Your task to perform on an android device: find which apps use the phone's location Image 0: 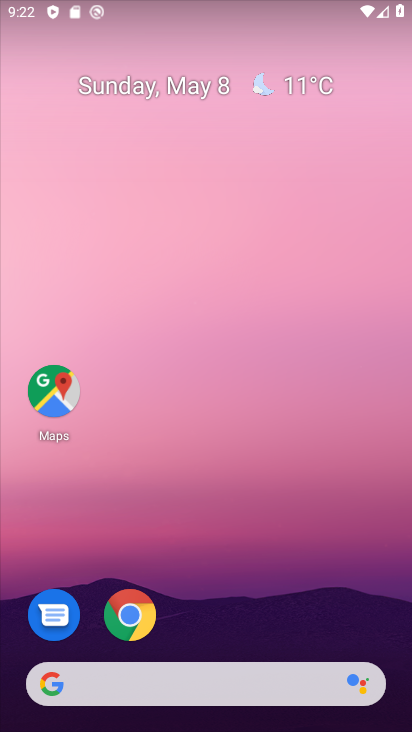
Step 0: drag from (224, 621) to (226, 89)
Your task to perform on an android device: find which apps use the phone's location Image 1: 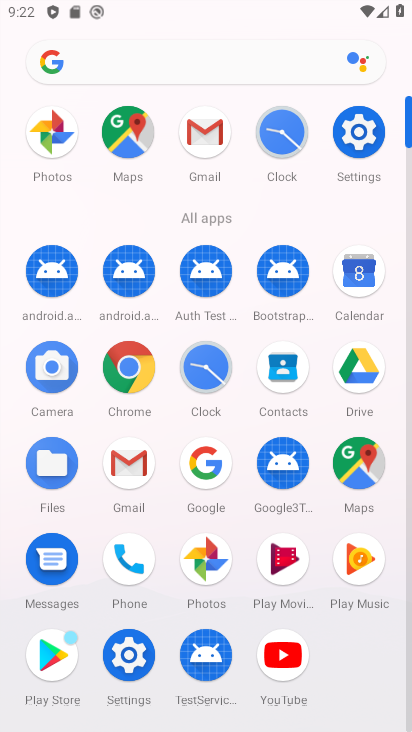
Step 1: click (353, 127)
Your task to perform on an android device: find which apps use the phone's location Image 2: 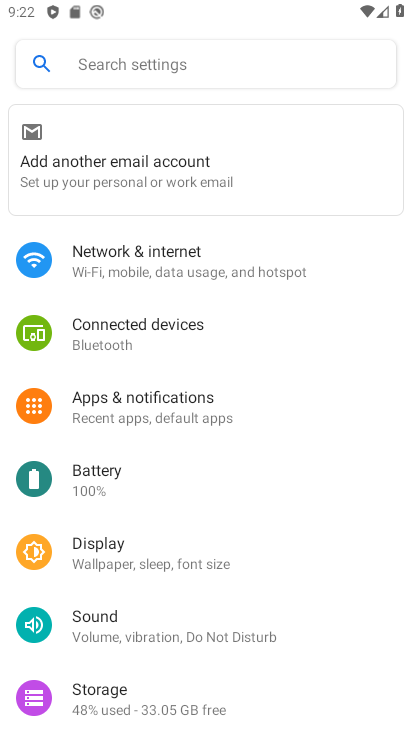
Step 2: drag from (192, 678) to (317, 265)
Your task to perform on an android device: find which apps use the phone's location Image 3: 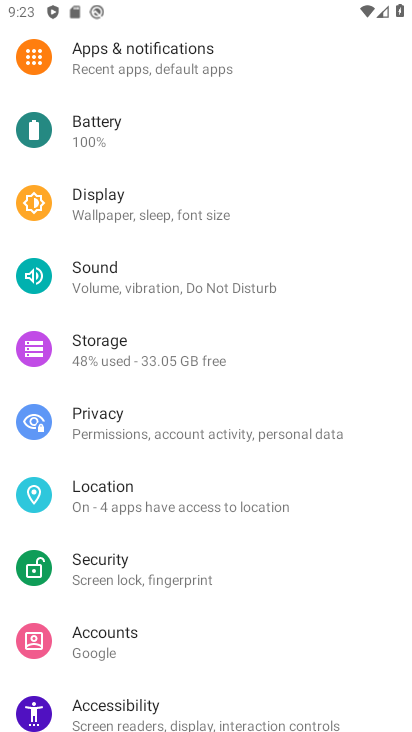
Step 3: drag from (200, 590) to (222, 409)
Your task to perform on an android device: find which apps use the phone's location Image 4: 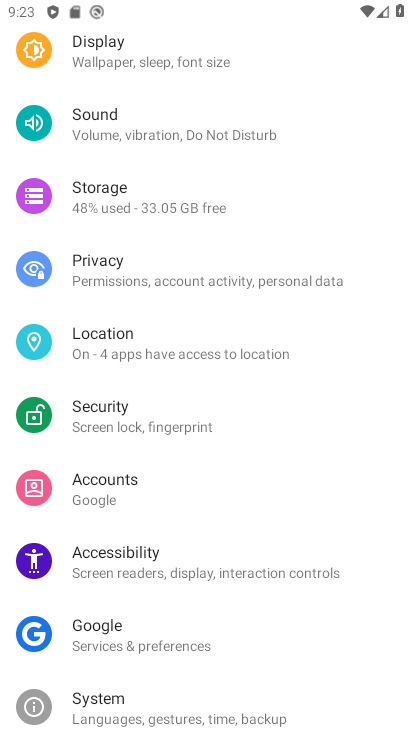
Step 4: click (143, 358)
Your task to perform on an android device: find which apps use the phone's location Image 5: 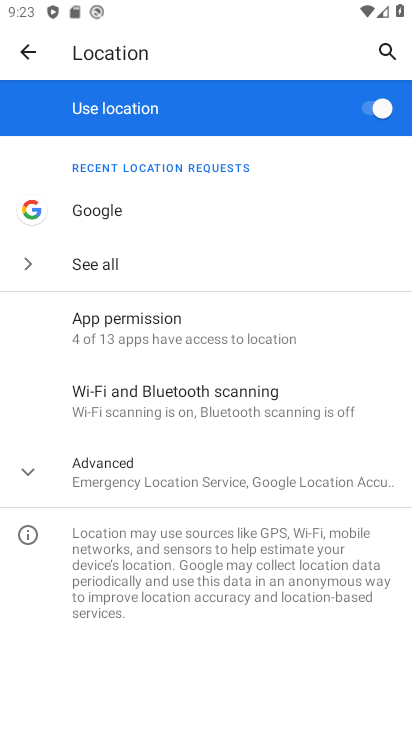
Step 5: click (114, 340)
Your task to perform on an android device: find which apps use the phone's location Image 6: 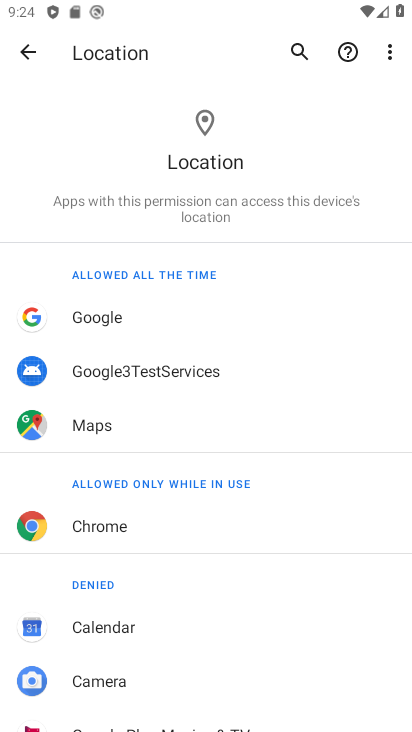
Step 6: task complete